Your task to perform on an android device: What's on my calendar today? Image 0: 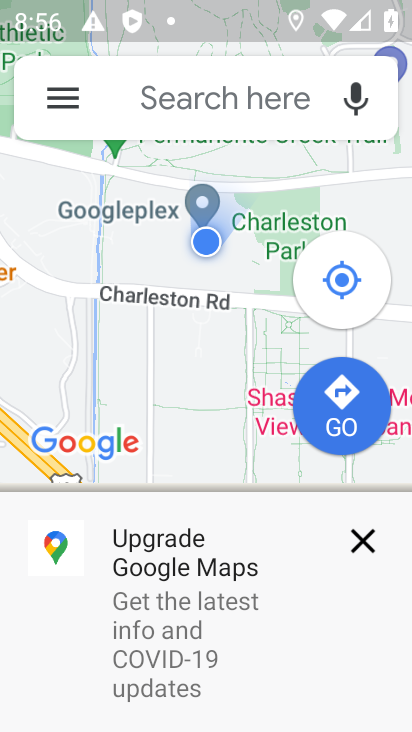
Step 0: press home button
Your task to perform on an android device: What's on my calendar today? Image 1: 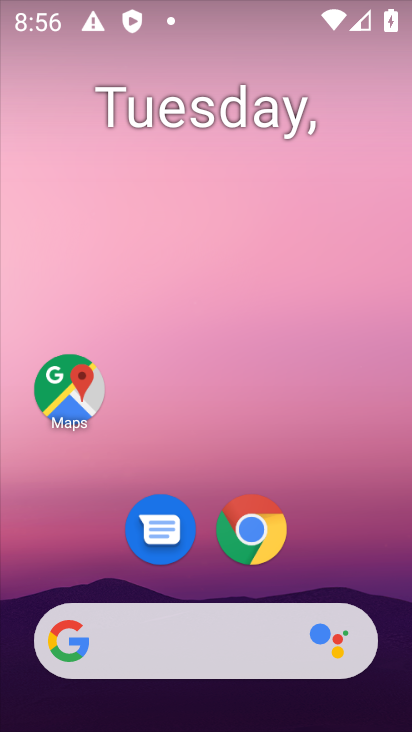
Step 1: drag from (201, 583) to (200, 284)
Your task to perform on an android device: What's on my calendar today? Image 2: 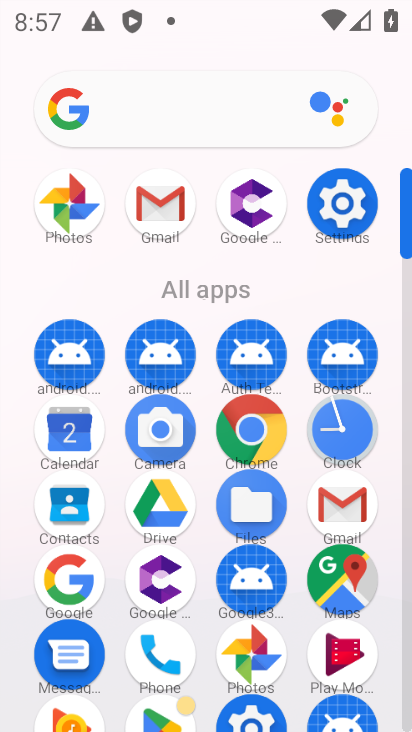
Step 2: click (71, 435)
Your task to perform on an android device: What's on my calendar today? Image 3: 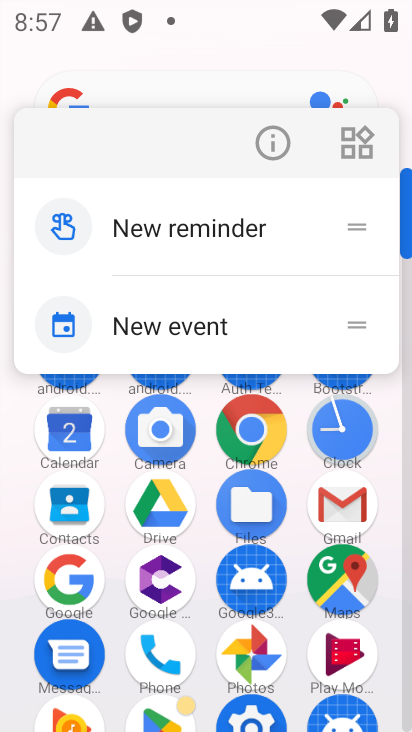
Step 3: click (264, 142)
Your task to perform on an android device: What's on my calendar today? Image 4: 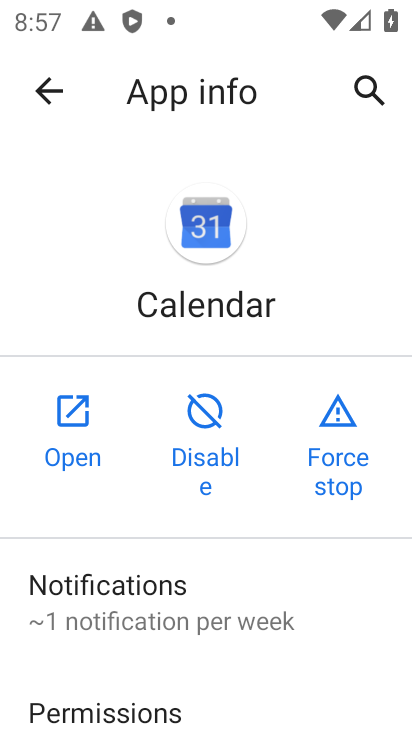
Step 4: click (58, 423)
Your task to perform on an android device: What's on my calendar today? Image 5: 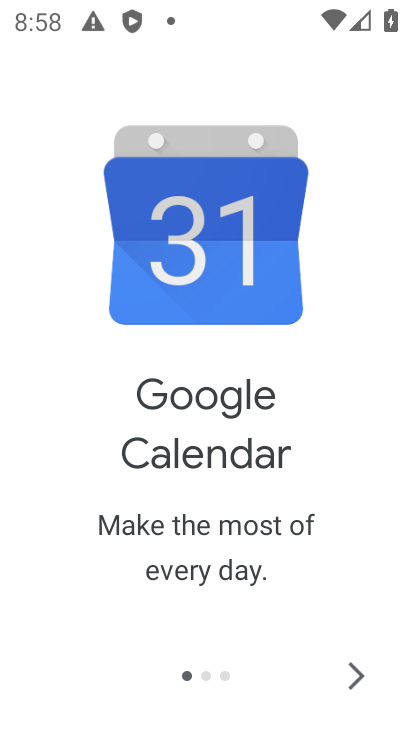
Step 5: drag from (172, 573) to (205, 494)
Your task to perform on an android device: What's on my calendar today? Image 6: 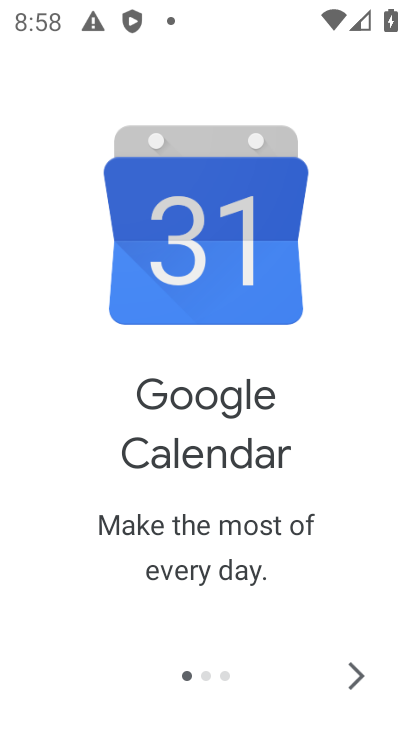
Step 6: click (349, 676)
Your task to perform on an android device: What's on my calendar today? Image 7: 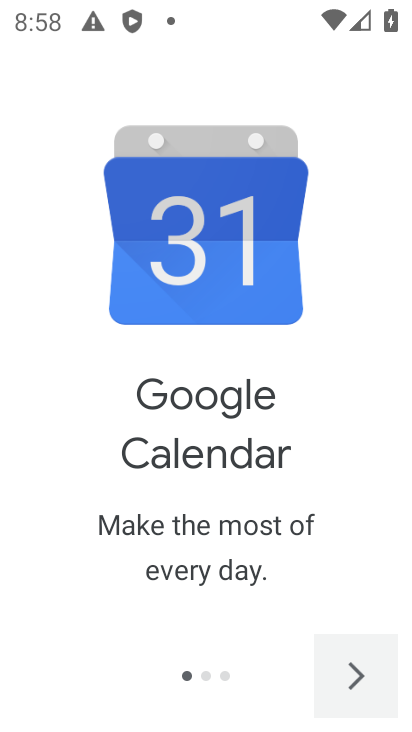
Step 7: click (349, 676)
Your task to perform on an android device: What's on my calendar today? Image 8: 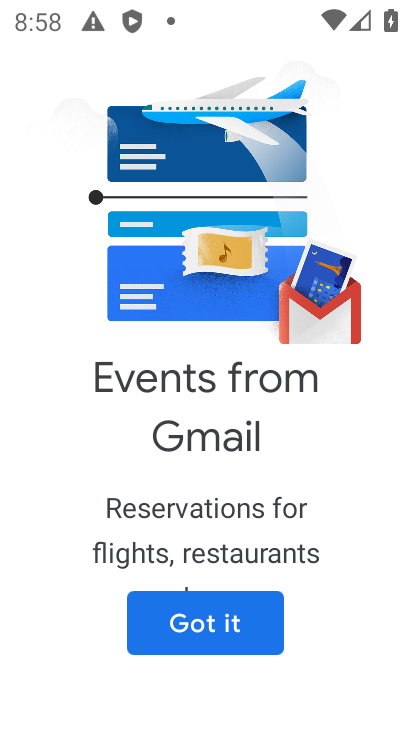
Step 8: click (205, 634)
Your task to perform on an android device: What's on my calendar today? Image 9: 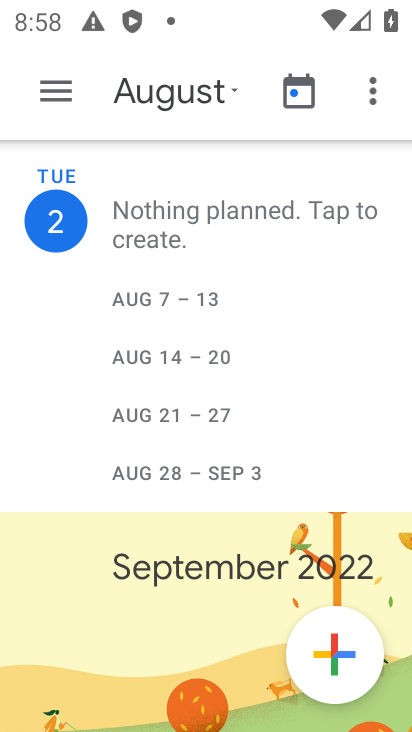
Step 9: click (300, 91)
Your task to perform on an android device: What's on my calendar today? Image 10: 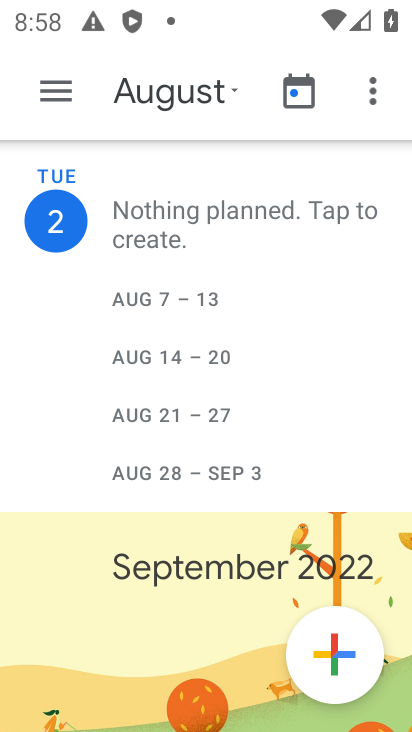
Step 10: task complete